Your task to perform on an android device: check battery use Image 0: 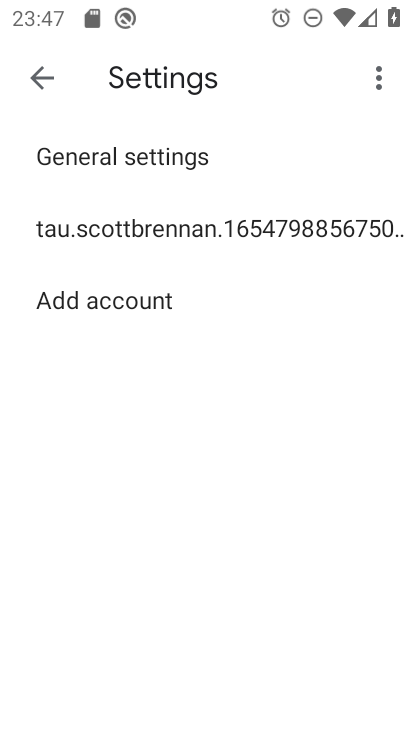
Step 0: press home button
Your task to perform on an android device: check battery use Image 1: 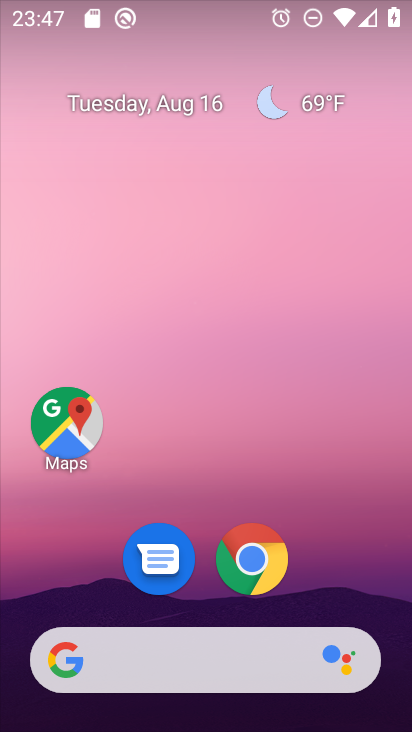
Step 1: drag from (211, 621) to (238, 188)
Your task to perform on an android device: check battery use Image 2: 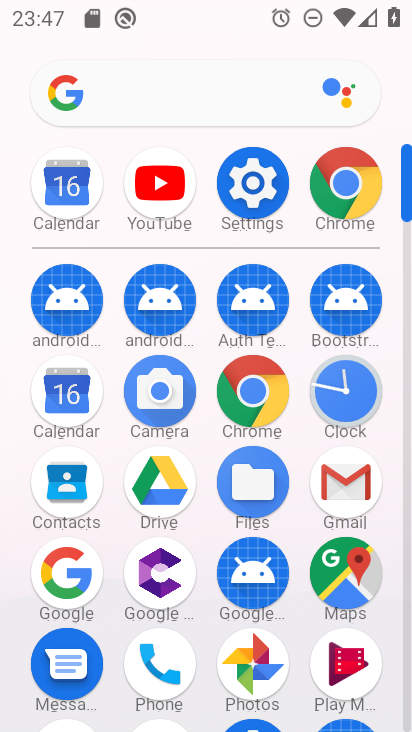
Step 2: click (251, 185)
Your task to perform on an android device: check battery use Image 3: 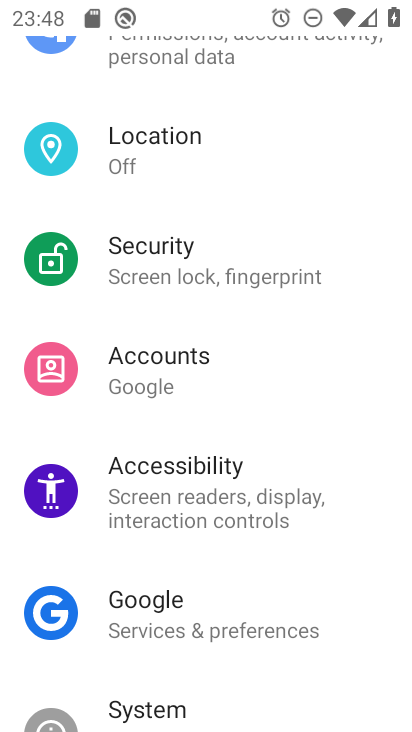
Step 3: drag from (251, 244) to (254, 424)
Your task to perform on an android device: check battery use Image 4: 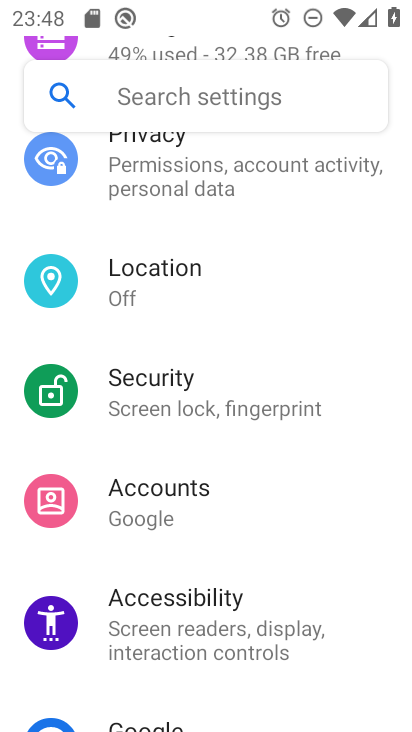
Step 4: drag from (250, 264) to (250, 468)
Your task to perform on an android device: check battery use Image 5: 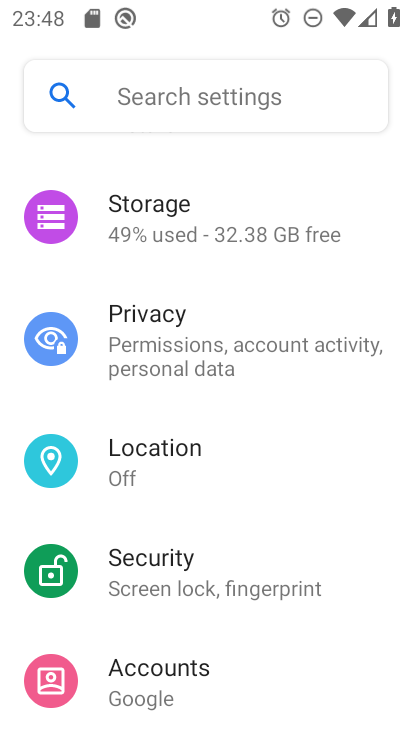
Step 5: drag from (278, 197) to (297, 470)
Your task to perform on an android device: check battery use Image 6: 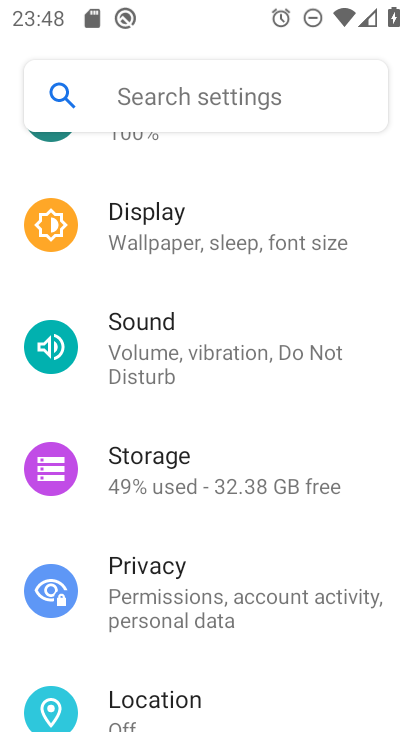
Step 6: drag from (285, 217) to (318, 434)
Your task to perform on an android device: check battery use Image 7: 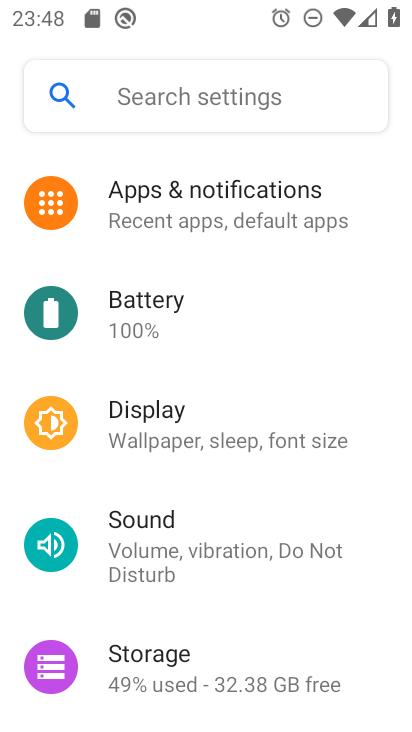
Step 7: click (173, 310)
Your task to perform on an android device: check battery use Image 8: 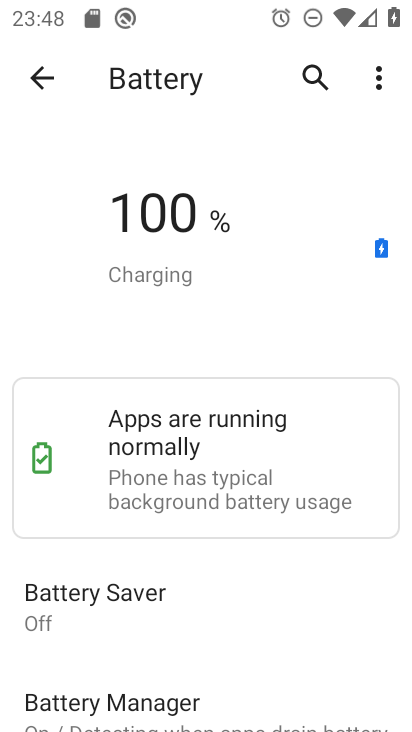
Step 8: click (379, 79)
Your task to perform on an android device: check battery use Image 9: 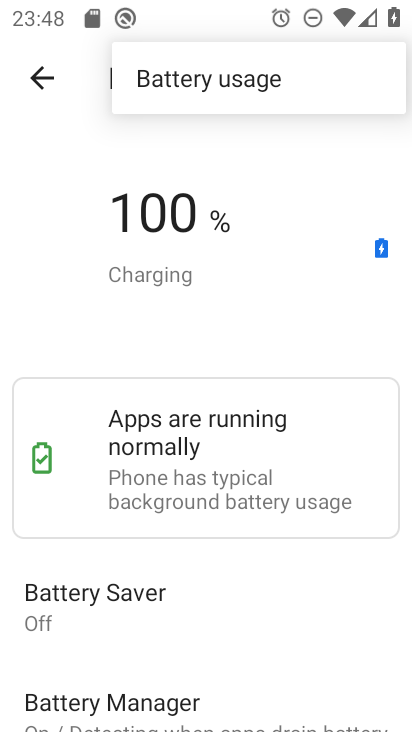
Step 9: click (275, 93)
Your task to perform on an android device: check battery use Image 10: 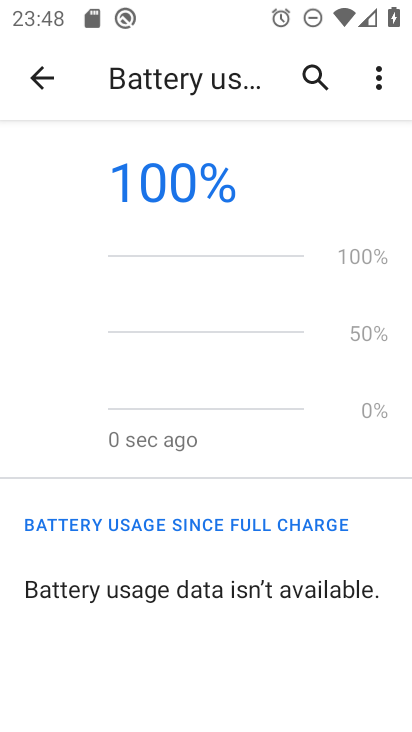
Step 10: task complete